Your task to perform on an android device: check google app version Image 0: 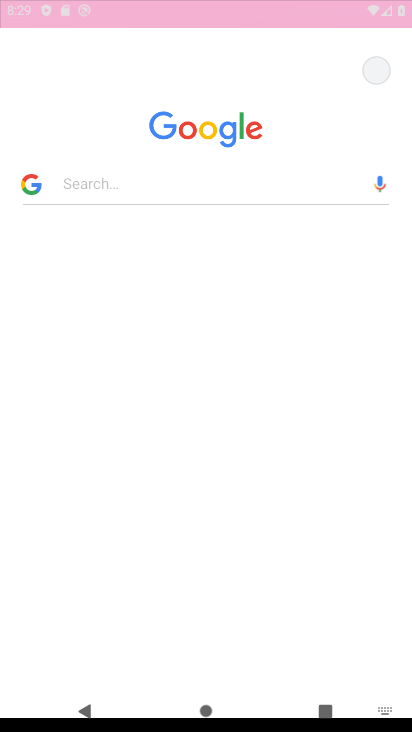
Step 0: click (201, 229)
Your task to perform on an android device: check google app version Image 1: 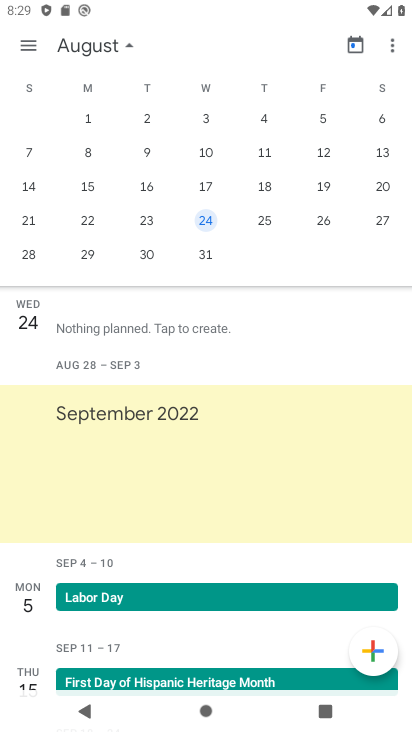
Step 1: press back button
Your task to perform on an android device: check google app version Image 2: 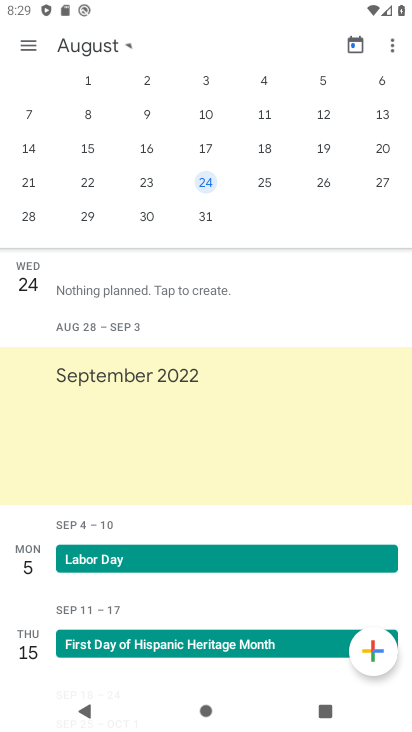
Step 2: press back button
Your task to perform on an android device: check google app version Image 3: 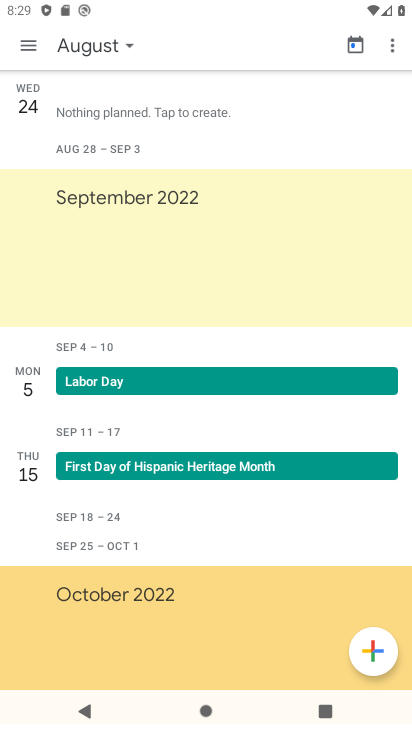
Step 3: press back button
Your task to perform on an android device: check google app version Image 4: 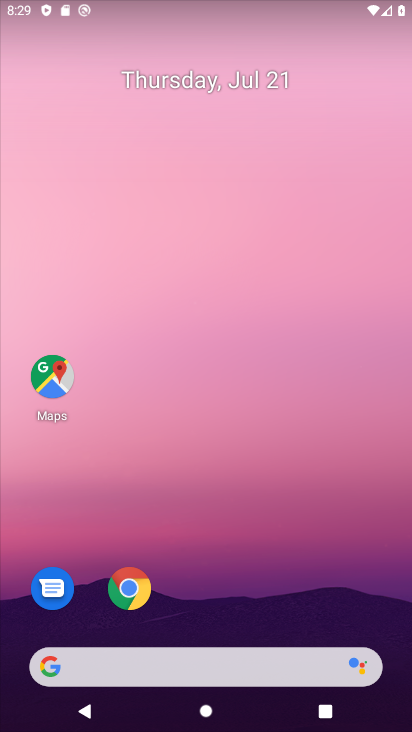
Step 4: drag from (189, 630) to (259, 76)
Your task to perform on an android device: check google app version Image 5: 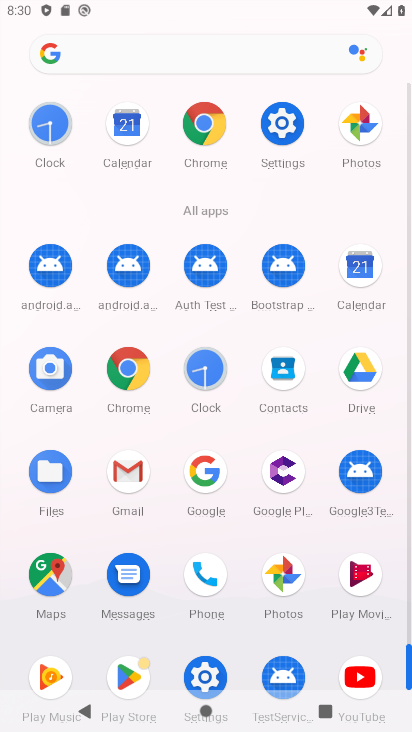
Step 5: click (200, 474)
Your task to perform on an android device: check google app version Image 6: 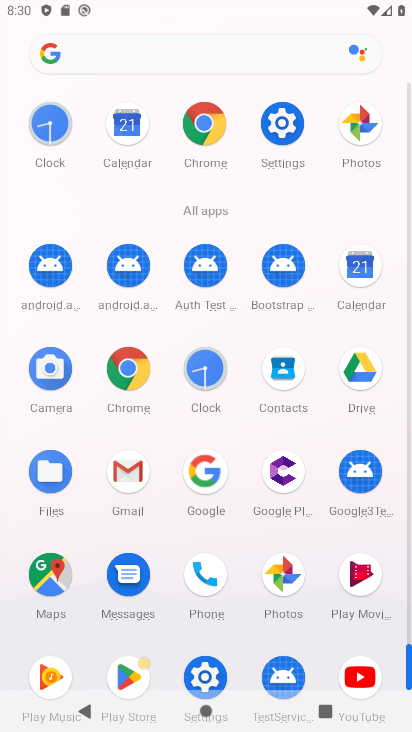
Step 6: click (201, 473)
Your task to perform on an android device: check google app version Image 7: 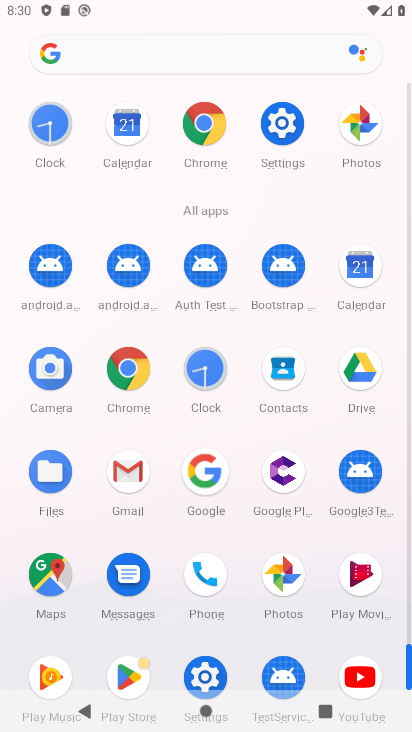
Step 7: click (201, 473)
Your task to perform on an android device: check google app version Image 8: 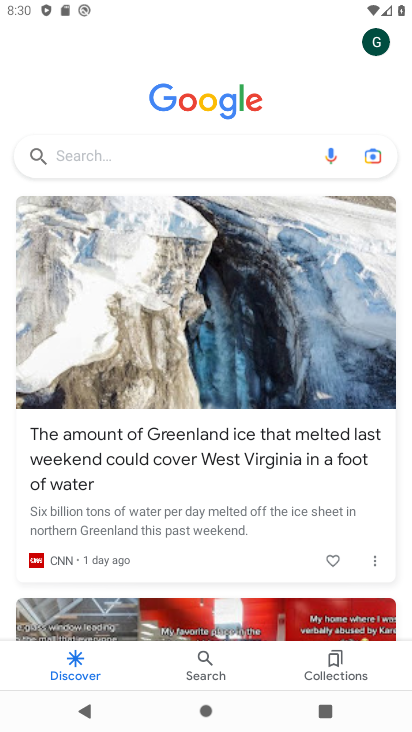
Step 8: click (376, 53)
Your task to perform on an android device: check google app version Image 9: 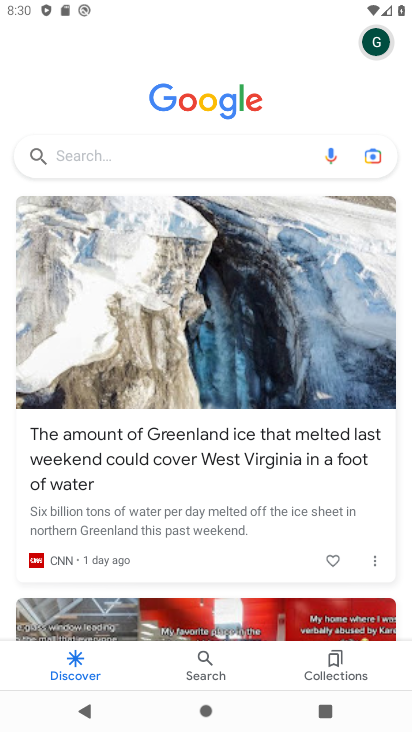
Step 9: click (375, 55)
Your task to perform on an android device: check google app version Image 10: 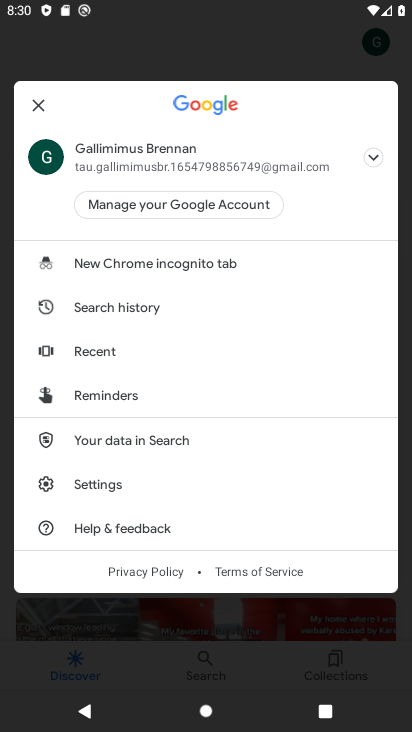
Step 10: click (89, 486)
Your task to perform on an android device: check google app version Image 11: 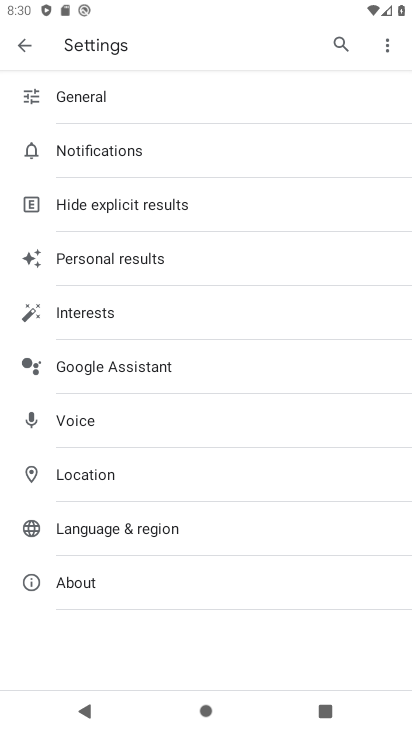
Step 11: click (77, 580)
Your task to perform on an android device: check google app version Image 12: 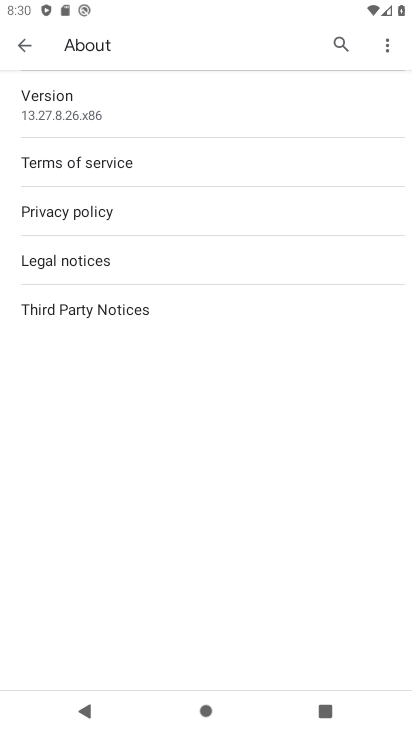
Step 12: click (98, 114)
Your task to perform on an android device: check google app version Image 13: 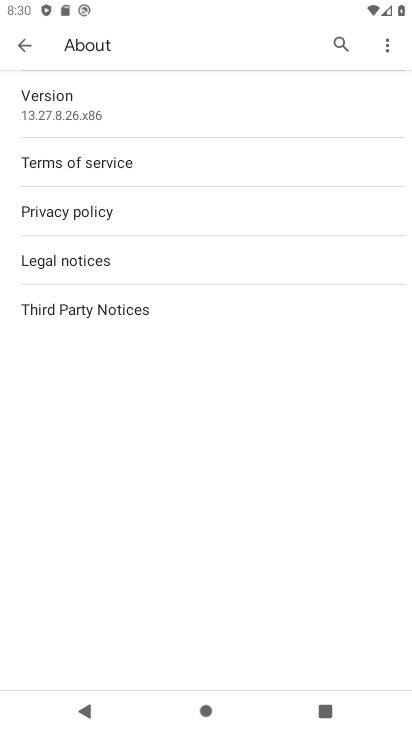
Step 13: task complete